Your task to perform on an android device: turn off notifications settings in the gmail app Image 0: 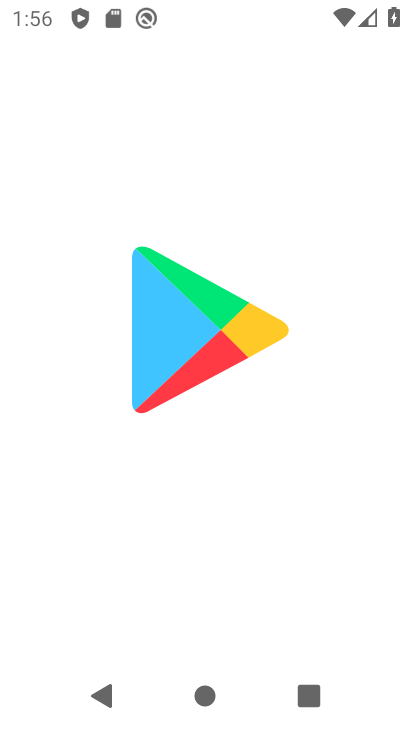
Step 0: click (73, 359)
Your task to perform on an android device: turn off notifications settings in the gmail app Image 1: 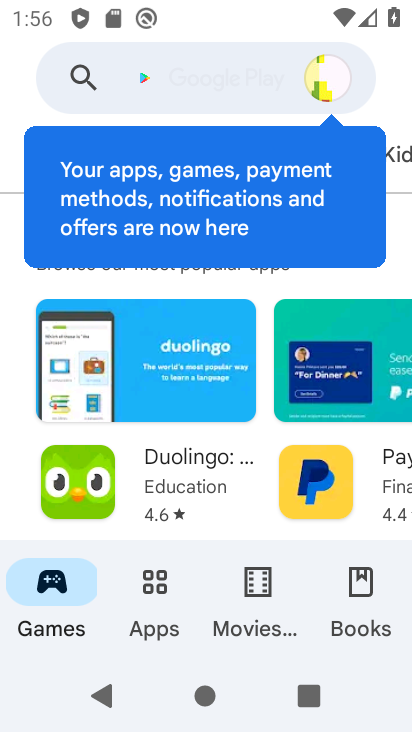
Step 1: press home button
Your task to perform on an android device: turn off notifications settings in the gmail app Image 2: 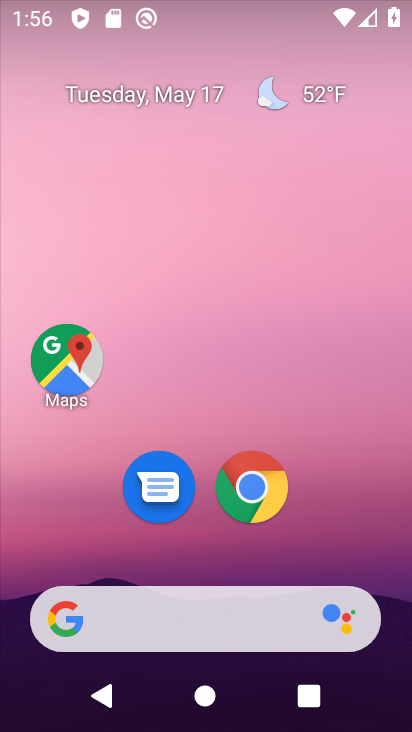
Step 2: drag from (387, 620) to (391, 268)
Your task to perform on an android device: turn off notifications settings in the gmail app Image 3: 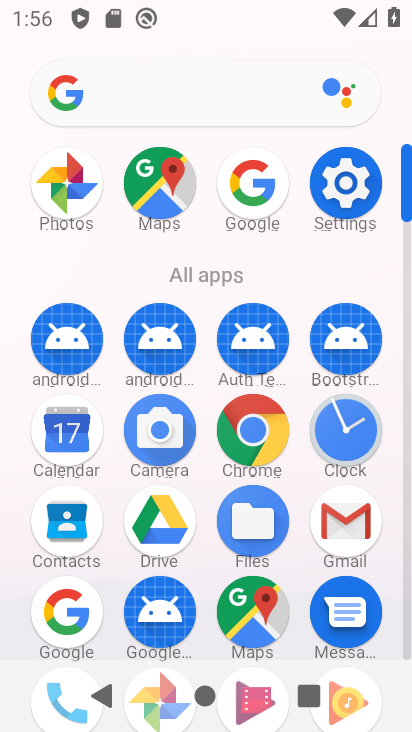
Step 3: click (346, 518)
Your task to perform on an android device: turn off notifications settings in the gmail app Image 4: 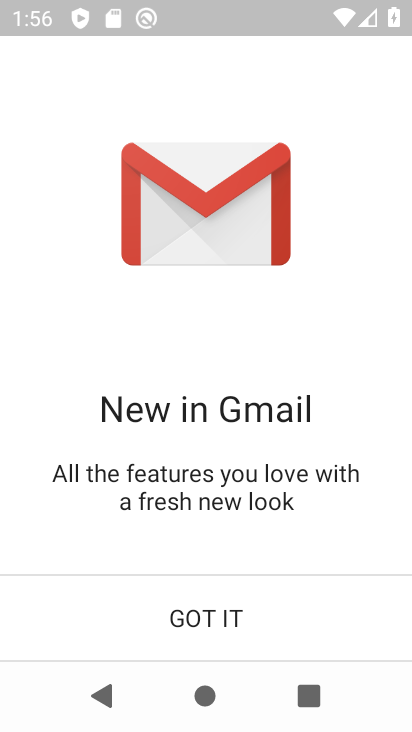
Step 4: click (202, 622)
Your task to perform on an android device: turn off notifications settings in the gmail app Image 5: 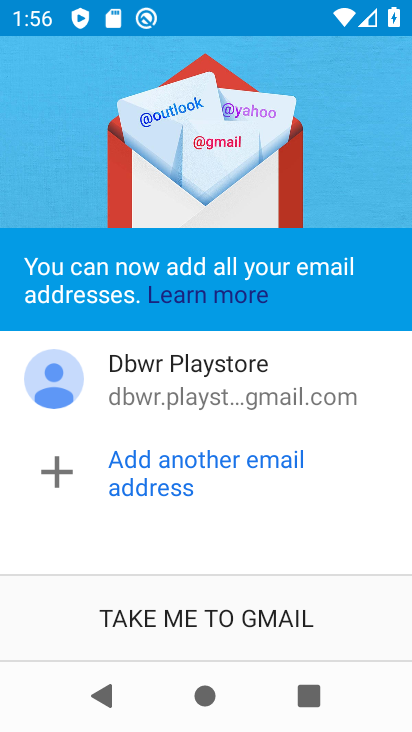
Step 5: click (213, 621)
Your task to perform on an android device: turn off notifications settings in the gmail app Image 6: 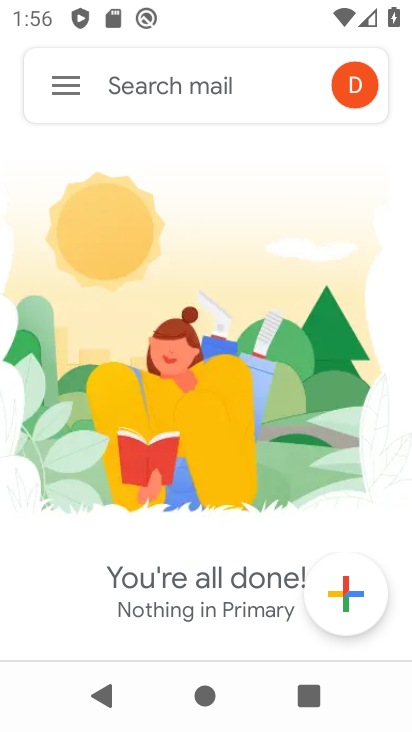
Step 6: click (68, 82)
Your task to perform on an android device: turn off notifications settings in the gmail app Image 7: 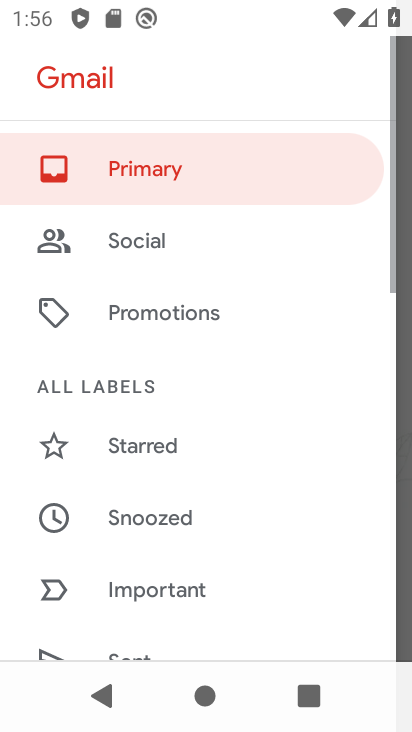
Step 7: click (356, 269)
Your task to perform on an android device: turn off notifications settings in the gmail app Image 8: 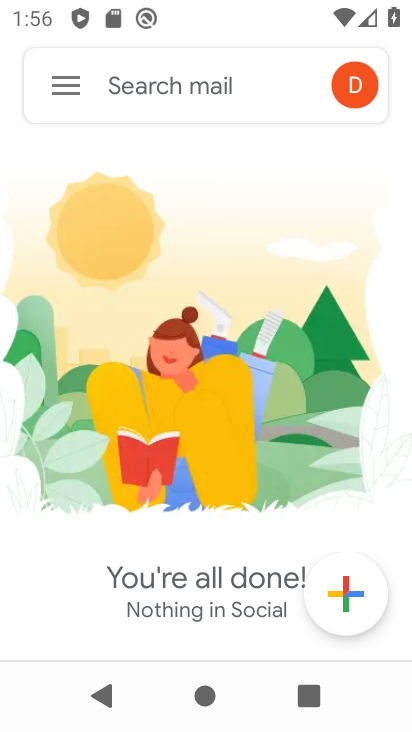
Step 8: click (60, 86)
Your task to perform on an android device: turn off notifications settings in the gmail app Image 9: 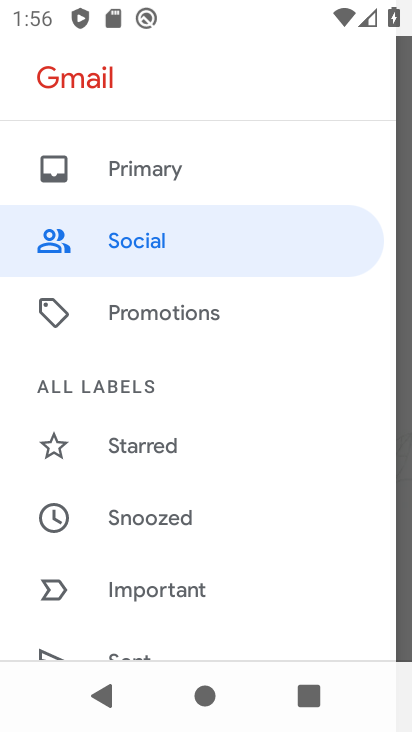
Step 9: drag from (296, 593) to (340, 339)
Your task to perform on an android device: turn off notifications settings in the gmail app Image 10: 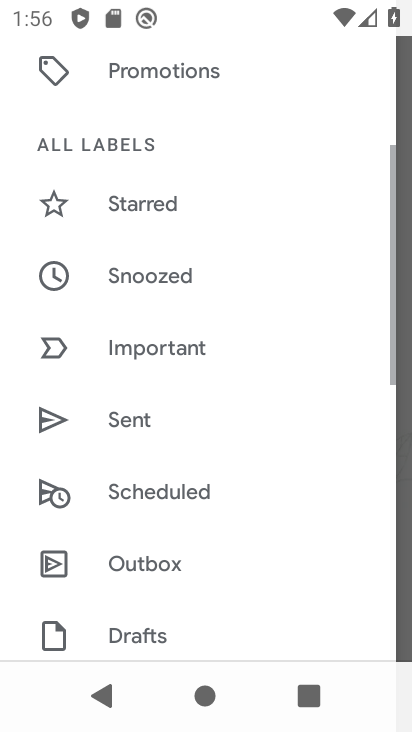
Step 10: drag from (316, 597) to (345, 324)
Your task to perform on an android device: turn off notifications settings in the gmail app Image 11: 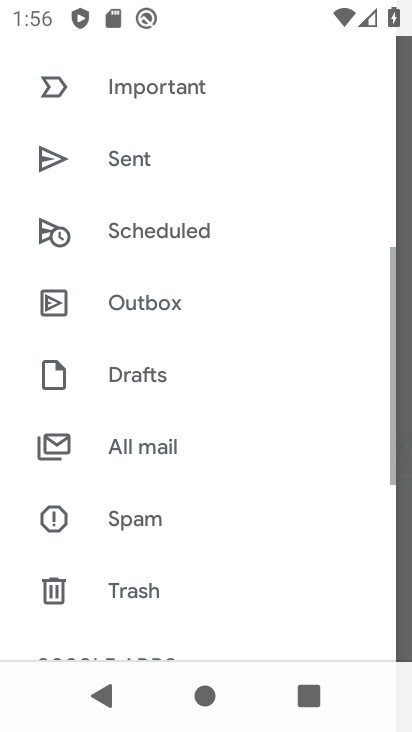
Step 11: drag from (277, 457) to (277, 358)
Your task to perform on an android device: turn off notifications settings in the gmail app Image 12: 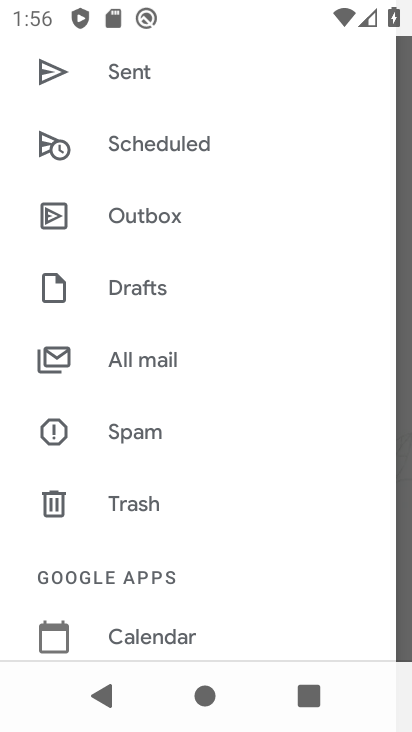
Step 12: drag from (282, 572) to (303, 346)
Your task to perform on an android device: turn off notifications settings in the gmail app Image 13: 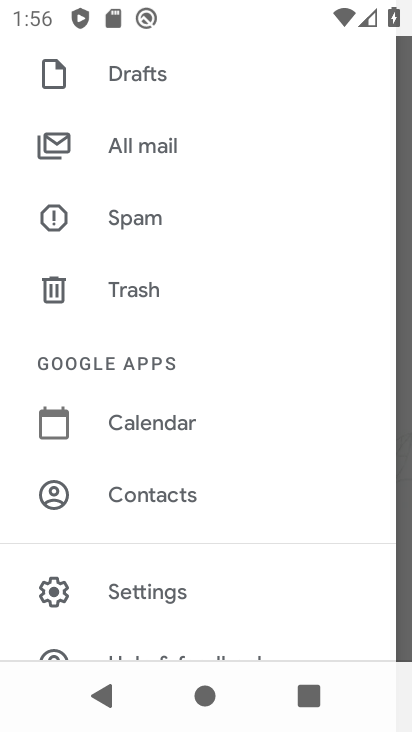
Step 13: click (157, 586)
Your task to perform on an android device: turn off notifications settings in the gmail app Image 14: 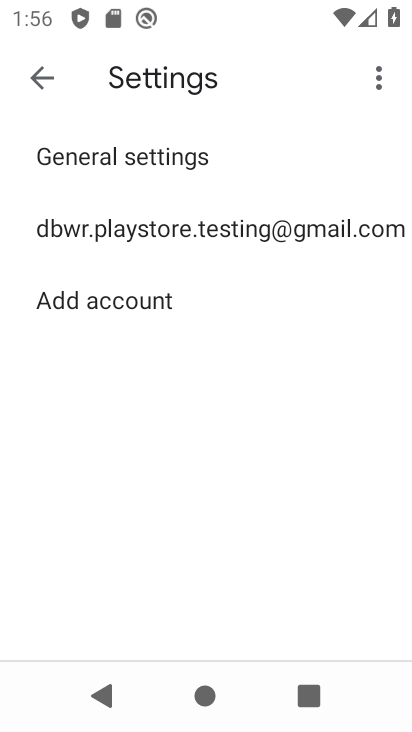
Step 14: click (126, 229)
Your task to perform on an android device: turn off notifications settings in the gmail app Image 15: 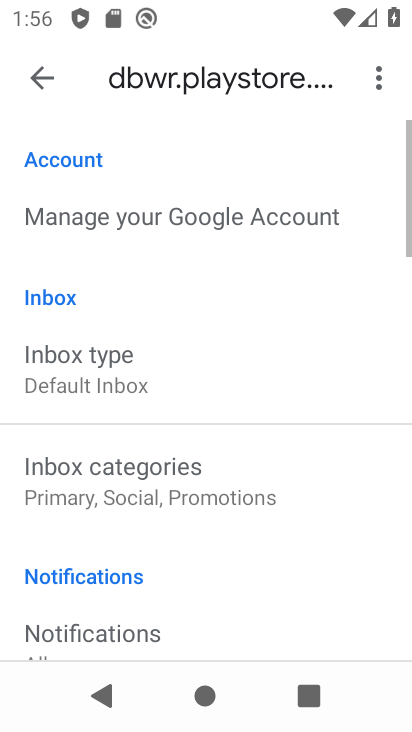
Step 15: click (38, 74)
Your task to perform on an android device: turn off notifications settings in the gmail app Image 16: 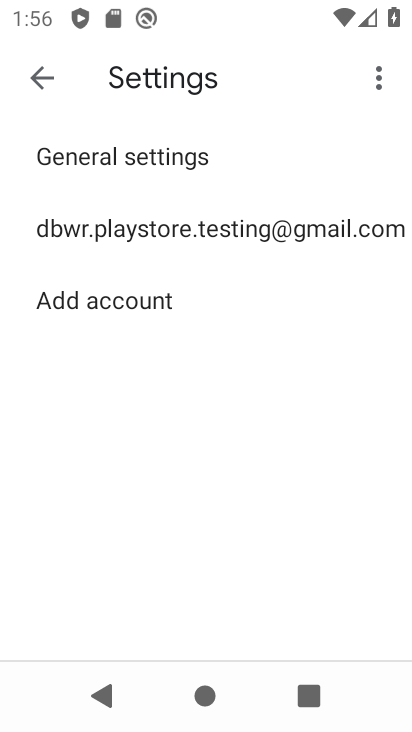
Step 16: click (103, 162)
Your task to perform on an android device: turn off notifications settings in the gmail app Image 17: 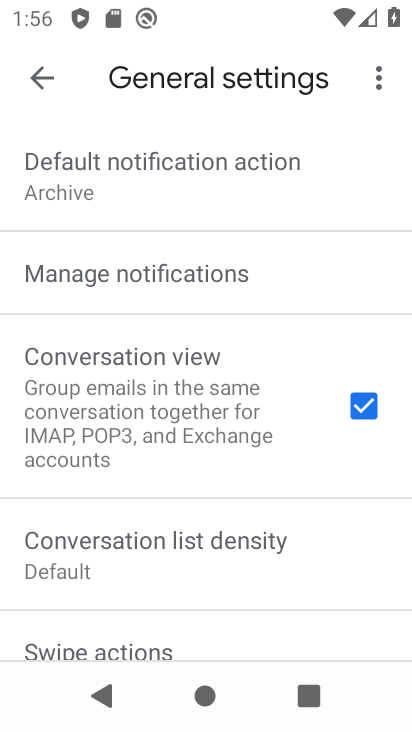
Step 17: click (99, 271)
Your task to perform on an android device: turn off notifications settings in the gmail app Image 18: 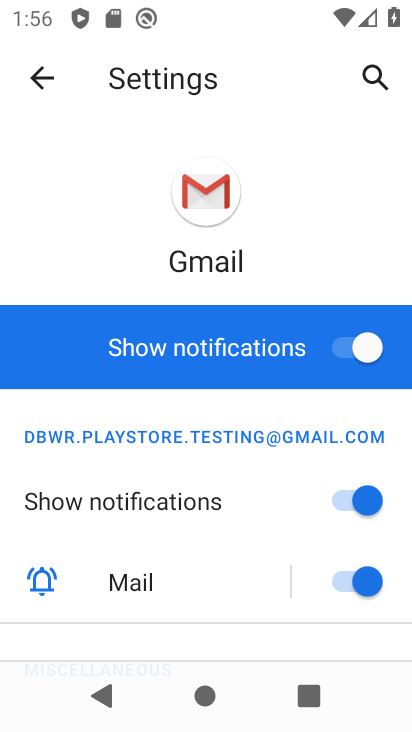
Step 18: click (339, 346)
Your task to perform on an android device: turn off notifications settings in the gmail app Image 19: 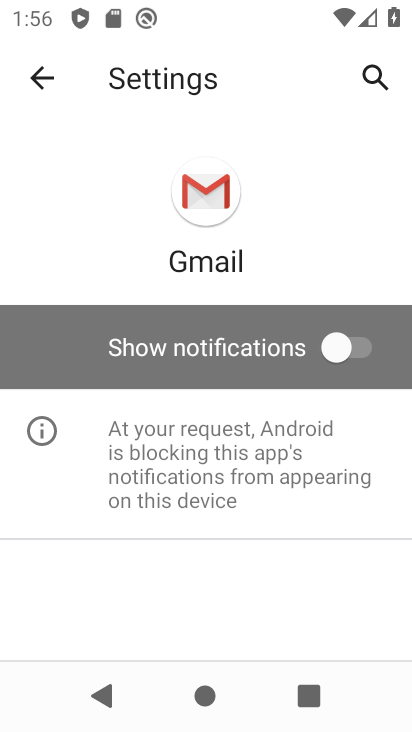
Step 19: task complete